Your task to perform on an android device: refresh tabs in the chrome app Image 0: 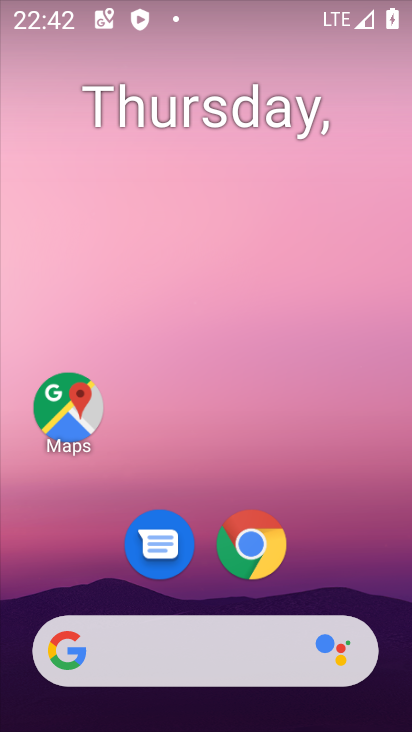
Step 0: click (247, 561)
Your task to perform on an android device: refresh tabs in the chrome app Image 1: 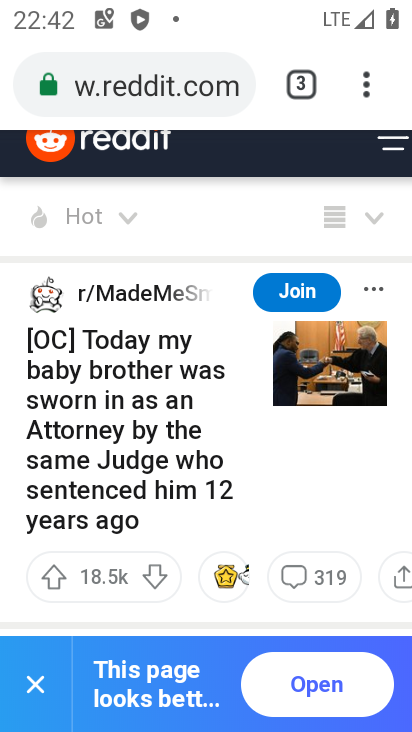
Step 1: click (367, 83)
Your task to perform on an android device: refresh tabs in the chrome app Image 2: 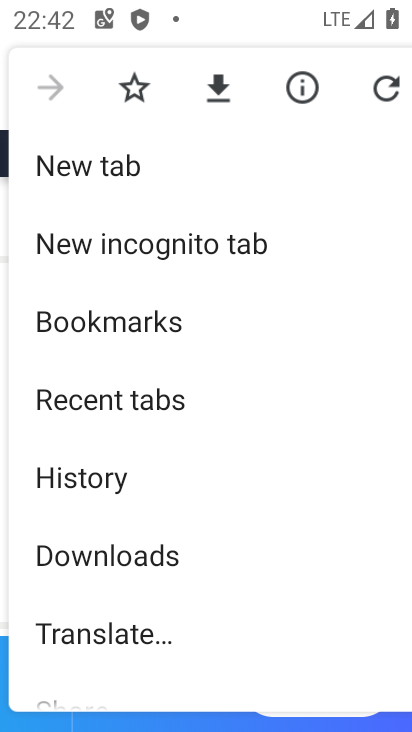
Step 2: click (378, 86)
Your task to perform on an android device: refresh tabs in the chrome app Image 3: 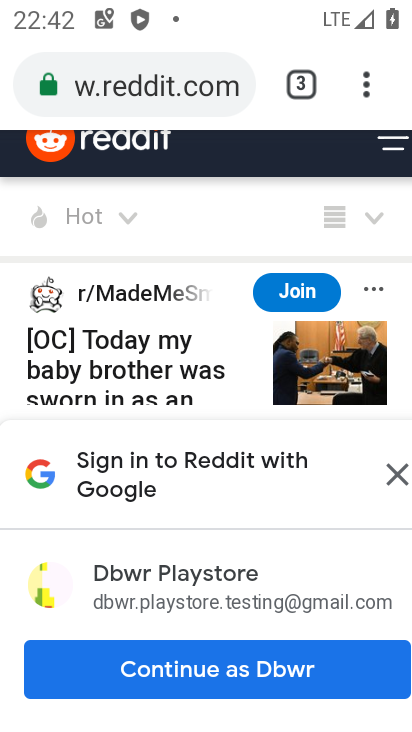
Step 3: task complete